Your task to perform on an android device: add a label to a message in the gmail app Image 0: 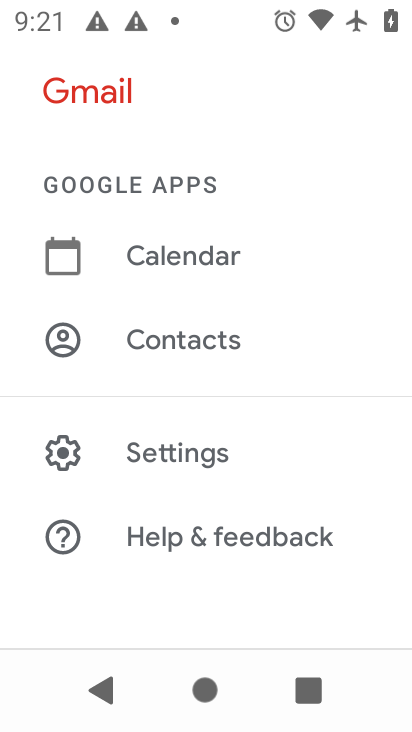
Step 0: press home button
Your task to perform on an android device: add a label to a message in the gmail app Image 1: 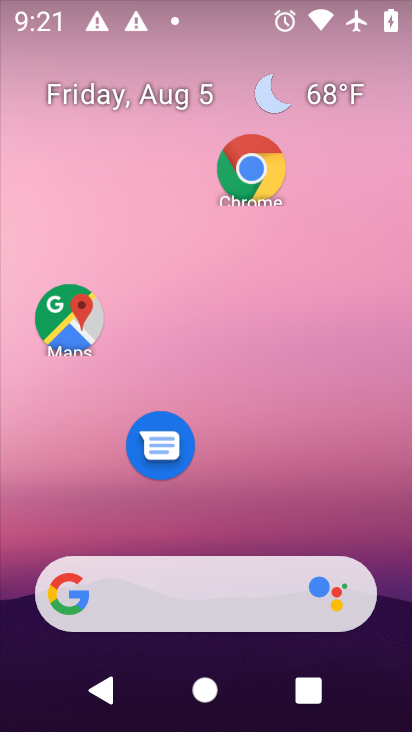
Step 1: drag from (210, 527) to (188, 135)
Your task to perform on an android device: add a label to a message in the gmail app Image 2: 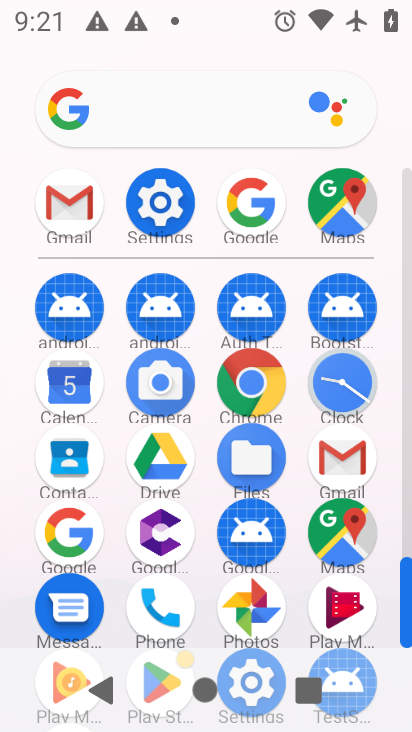
Step 2: click (46, 201)
Your task to perform on an android device: add a label to a message in the gmail app Image 3: 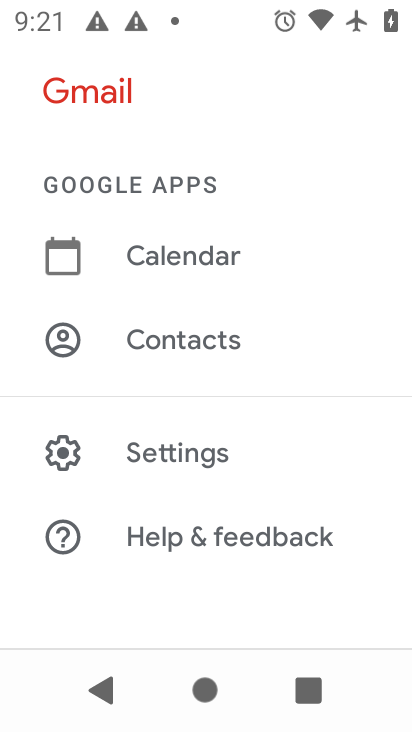
Step 3: task complete